Your task to perform on an android device: Open the calendar app, open the side menu, and click the "Day" option Image 0: 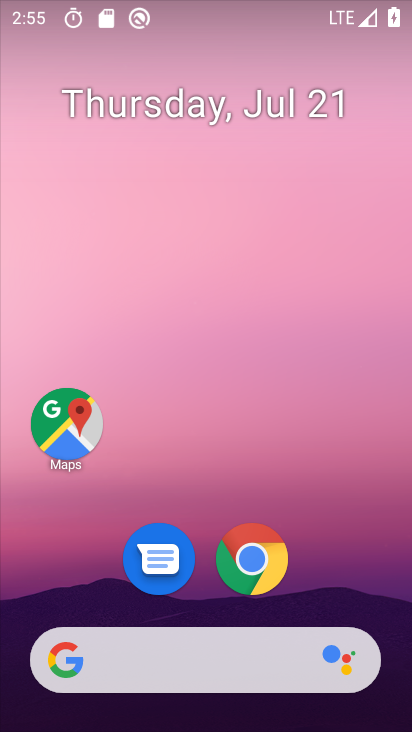
Step 0: drag from (369, 562) to (357, 86)
Your task to perform on an android device: Open the calendar app, open the side menu, and click the "Day" option Image 1: 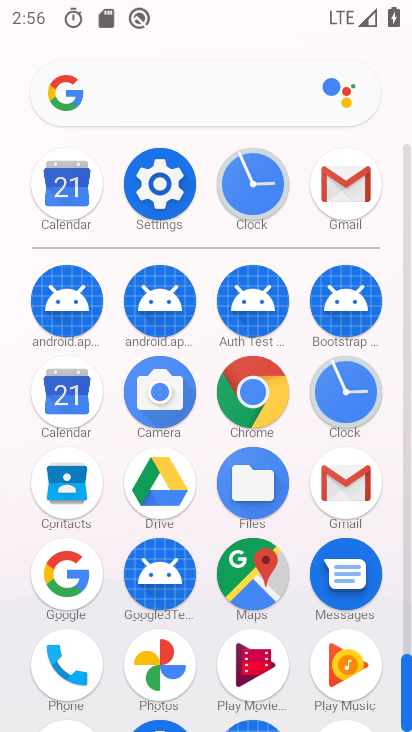
Step 1: click (71, 395)
Your task to perform on an android device: Open the calendar app, open the side menu, and click the "Day" option Image 2: 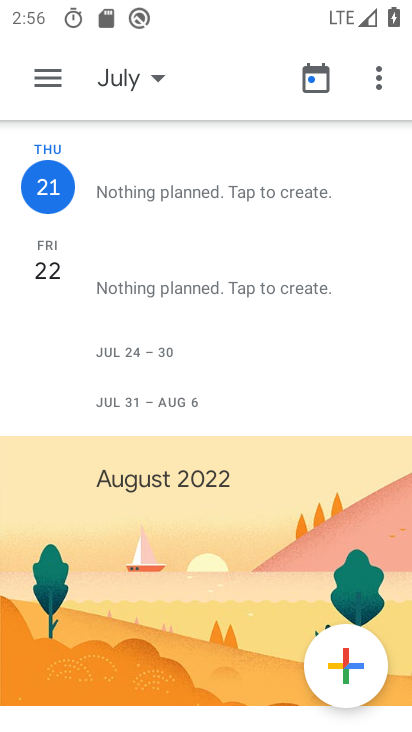
Step 2: click (47, 80)
Your task to perform on an android device: Open the calendar app, open the side menu, and click the "Day" option Image 3: 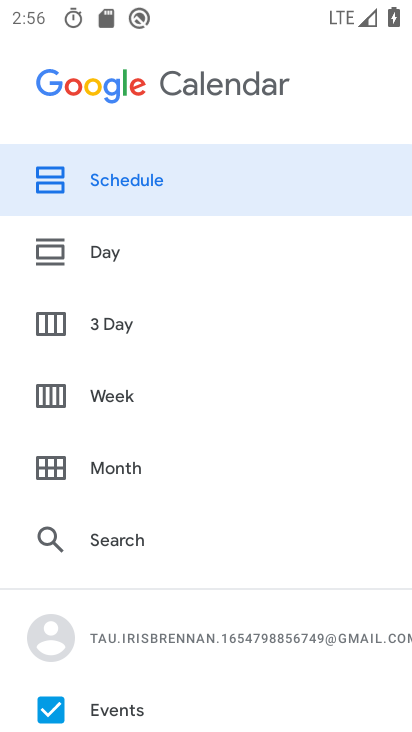
Step 3: click (101, 250)
Your task to perform on an android device: Open the calendar app, open the side menu, and click the "Day" option Image 4: 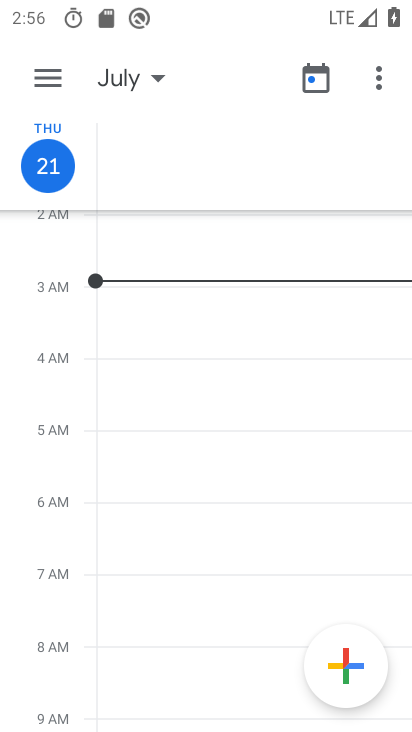
Step 4: task complete